Your task to perform on an android device: Open calendar and show me the first week of next month Image 0: 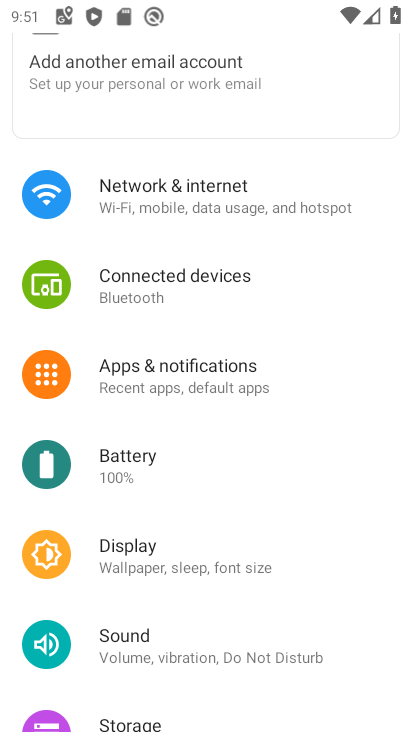
Step 0: press home button
Your task to perform on an android device: Open calendar and show me the first week of next month Image 1: 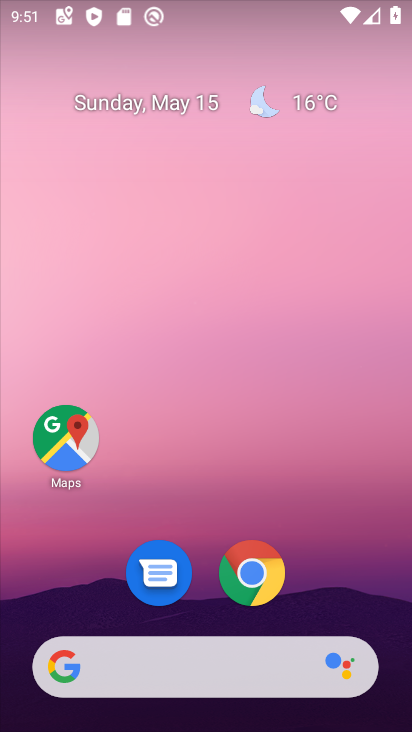
Step 1: drag from (334, 568) to (341, 301)
Your task to perform on an android device: Open calendar and show me the first week of next month Image 2: 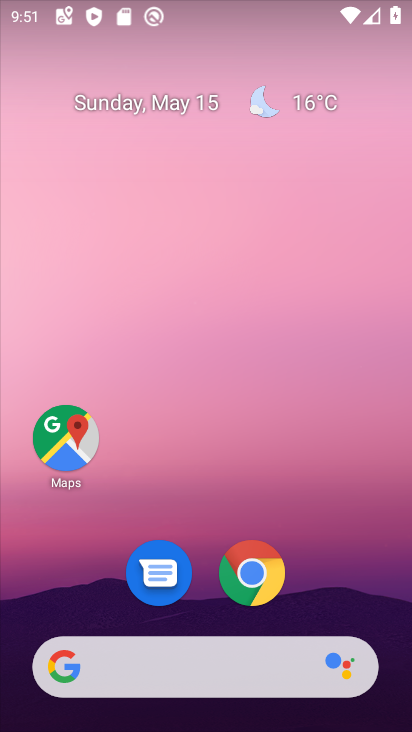
Step 2: drag from (345, 598) to (355, 20)
Your task to perform on an android device: Open calendar and show me the first week of next month Image 3: 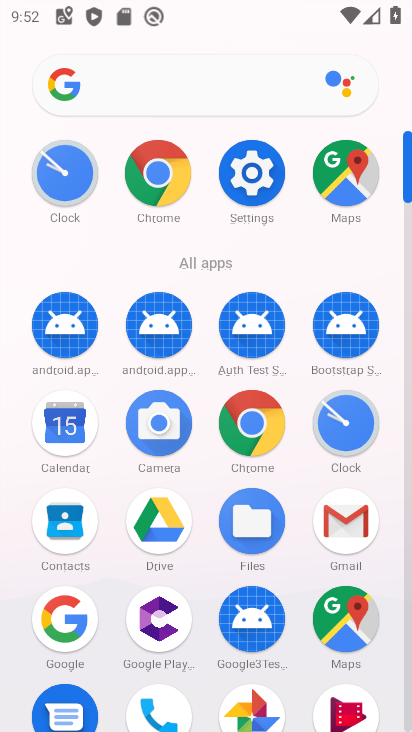
Step 3: click (63, 442)
Your task to perform on an android device: Open calendar and show me the first week of next month Image 4: 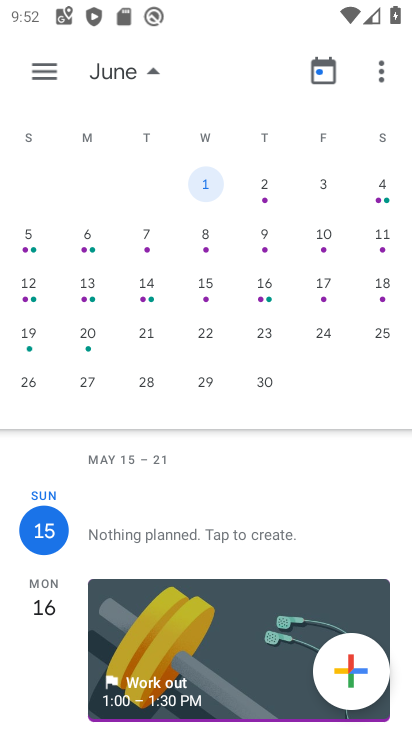
Step 4: task complete